Your task to perform on an android device: Go to location settings Image 0: 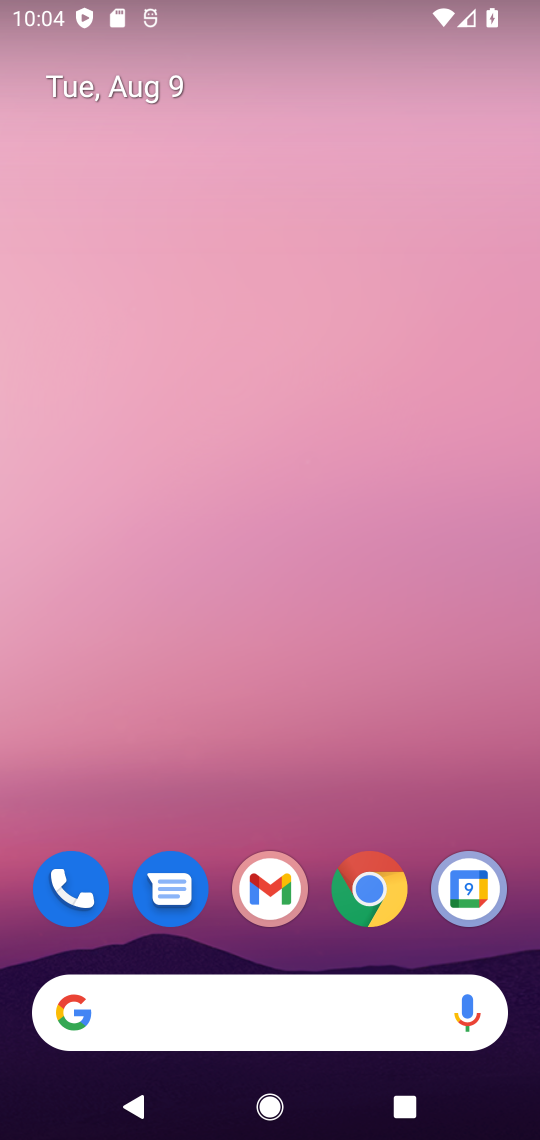
Step 0: drag from (205, 918) to (394, 67)
Your task to perform on an android device: Go to location settings Image 1: 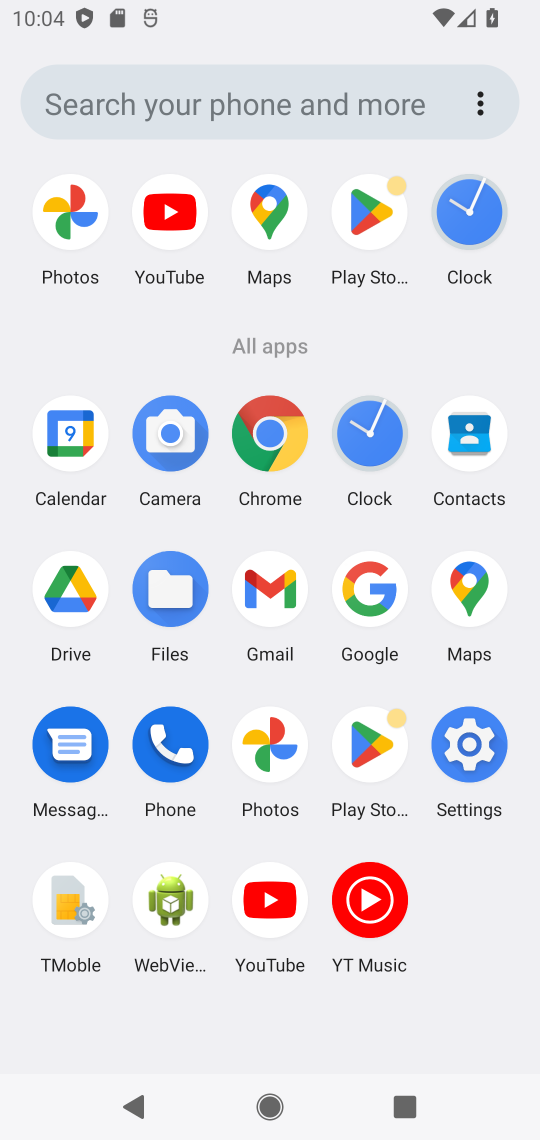
Step 1: click (481, 756)
Your task to perform on an android device: Go to location settings Image 2: 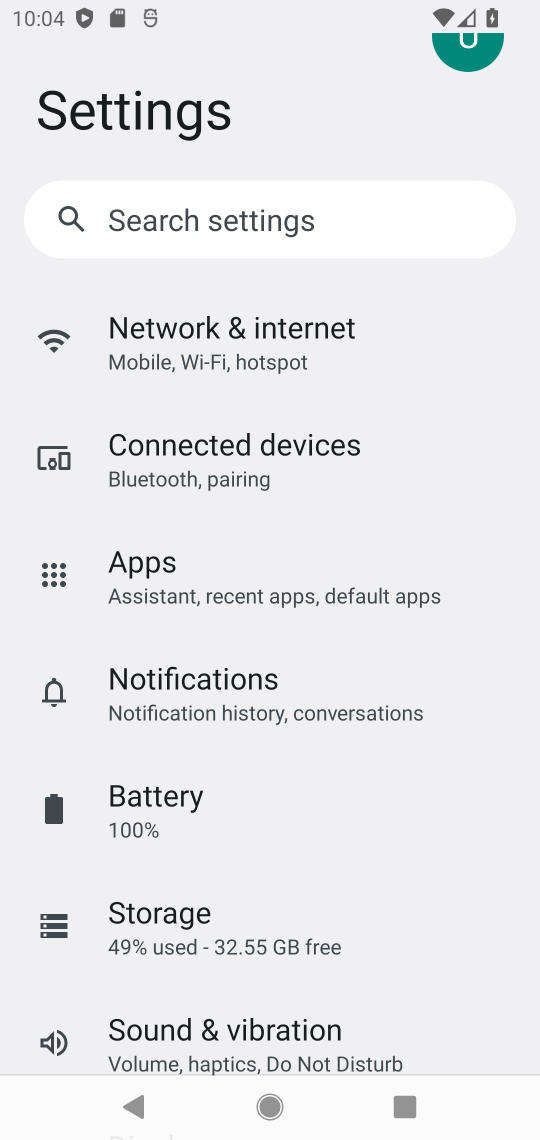
Step 2: drag from (273, 991) to (341, 352)
Your task to perform on an android device: Go to location settings Image 3: 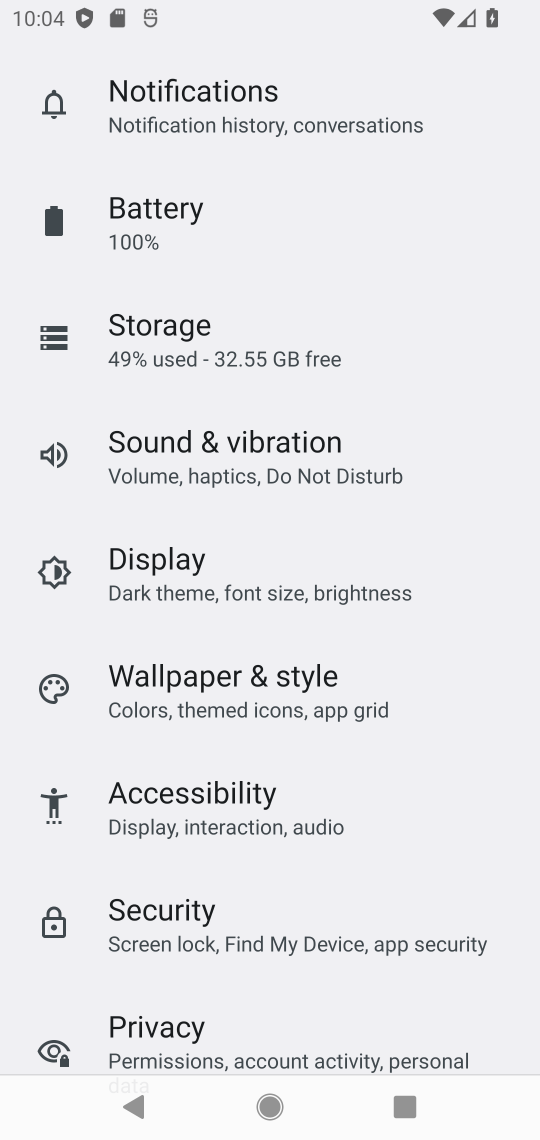
Step 3: drag from (273, 920) to (414, 181)
Your task to perform on an android device: Go to location settings Image 4: 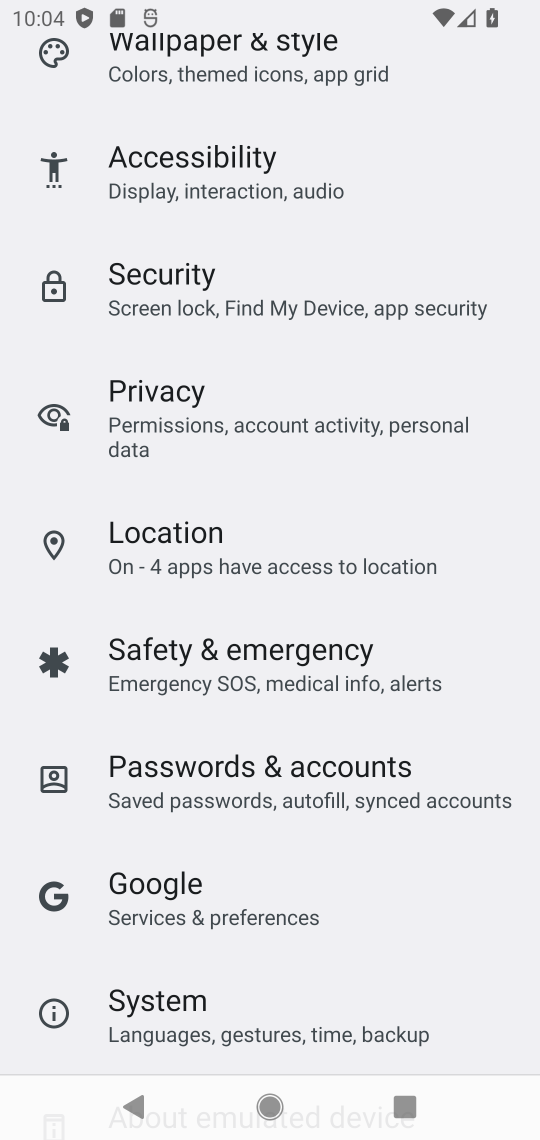
Step 4: click (177, 548)
Your task to perform on an android device: Go to location settings Image 5: 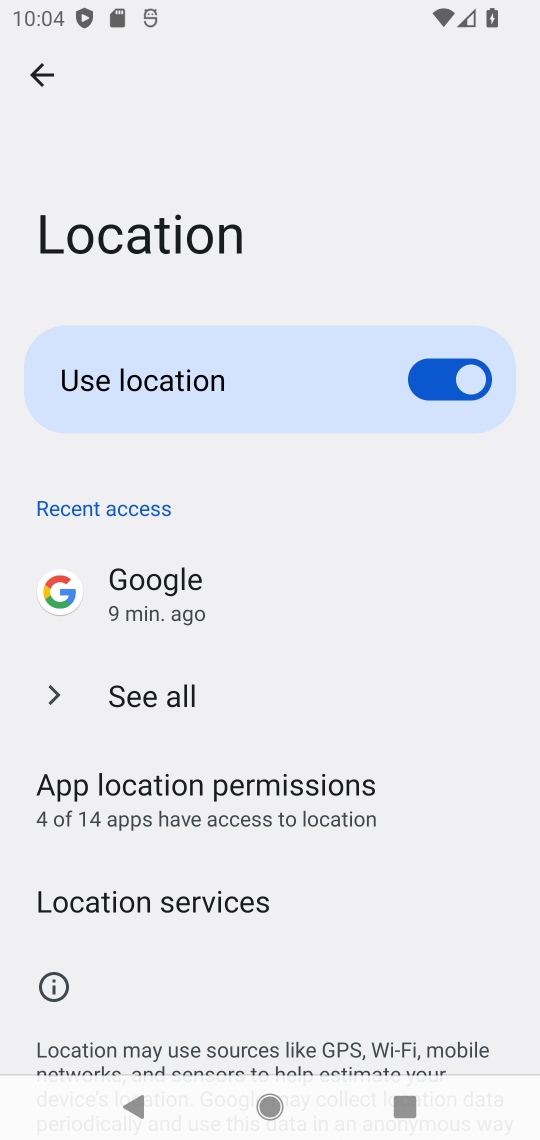
Step 5: task complete